Your task to perform on an android device: turn on translation in the chrome app Image 0: 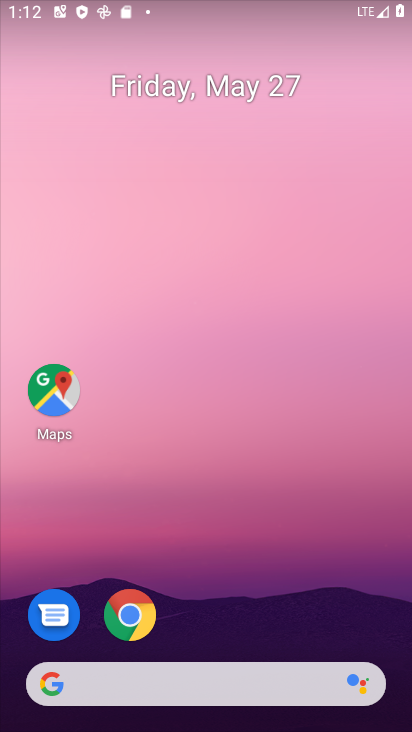
Step 0: drag from (294, 677) to (265, 81)
Your task to perform on an android device: turn on translation in the chrome app Image 1: 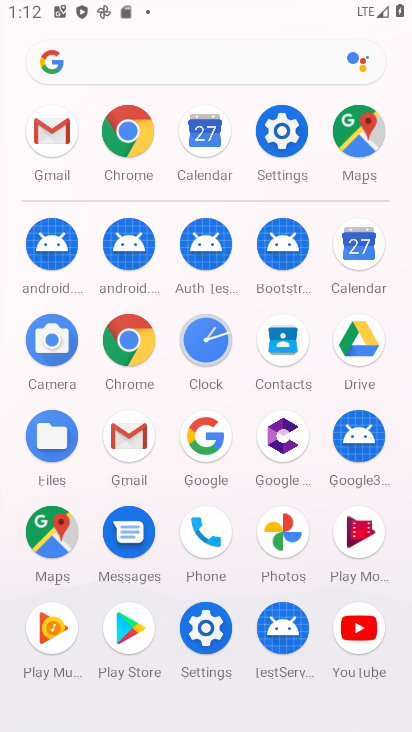
Step 1: click (126, 349)
Your task to perform on an android device: turn on translation in the chrome app Image 2: 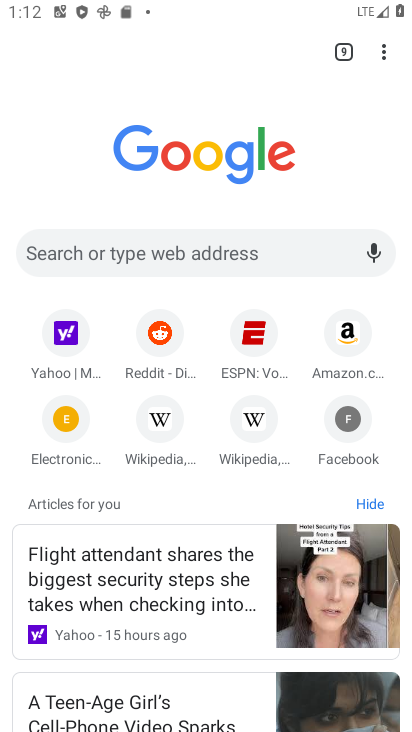
Step 2: drag from (374, 54) to (226, 433)
Your task to perform on an android device: turn on translation in the chrome app Image 3: 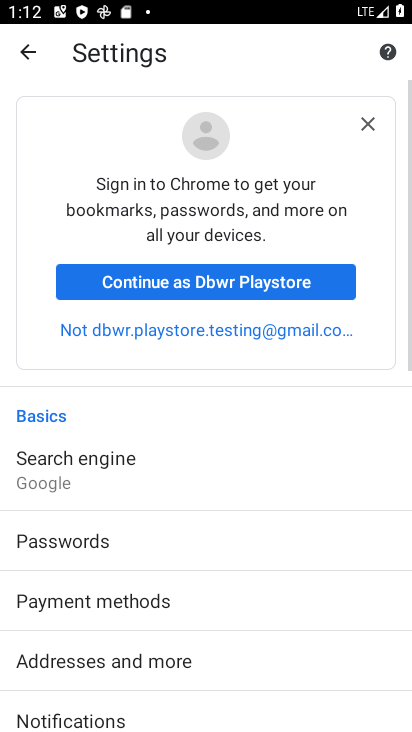
Step 3: drag from (177, 656) to (205, 138)
Your task to perform on an android device: turn on translation in the chrome app Image 4: 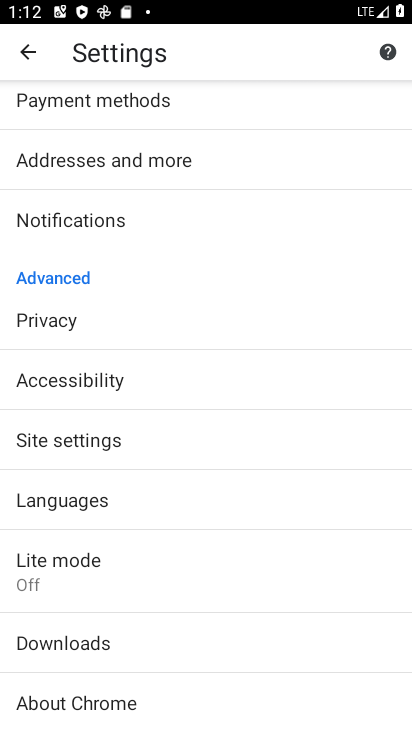
Step 4: click (108, 507)
Your task to perform on an android device: turn on translation in the chrome app Image 5: 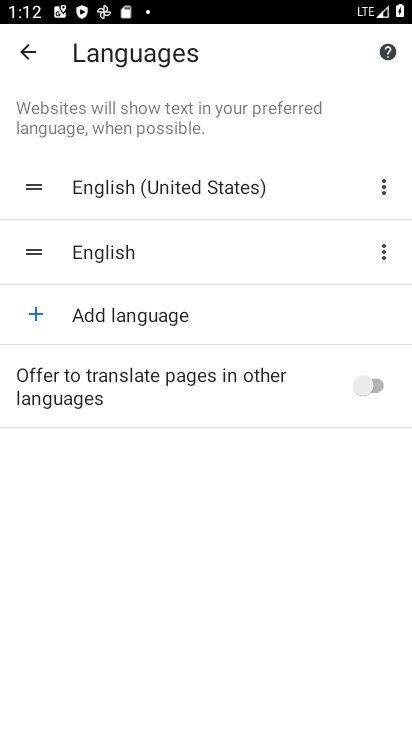
Step 5: click (381, 379)
Your task to perform on an android device: turn on translation in the chrome app Image 6: 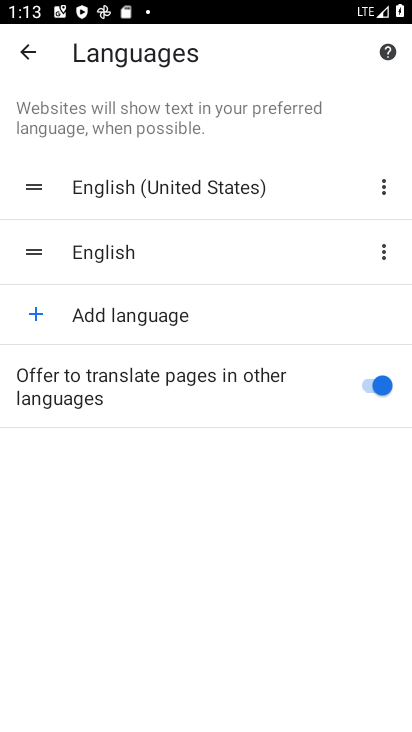
Step 6: task complete